Your task to perform on an android device: turn off picture-in-picture Image 0: 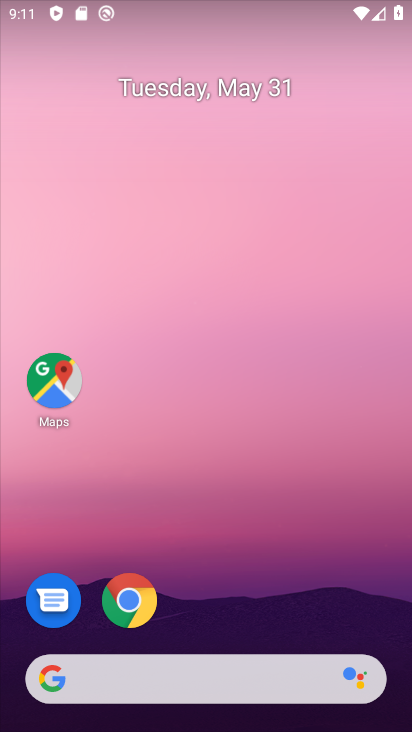
Step 0: drag from (209, 625) to (203, 286)
Your task to perform on an android device: turn off picture-in-picture Image 1: 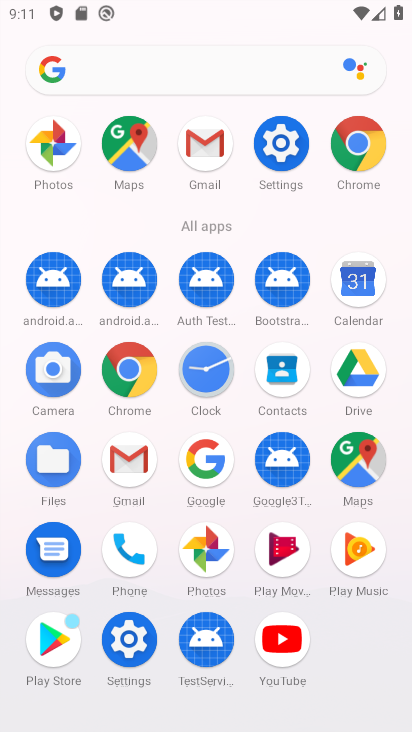
Step 1: click (132, 640)
Your task to perform on an android device: turn off picture-in-picture Image 2: 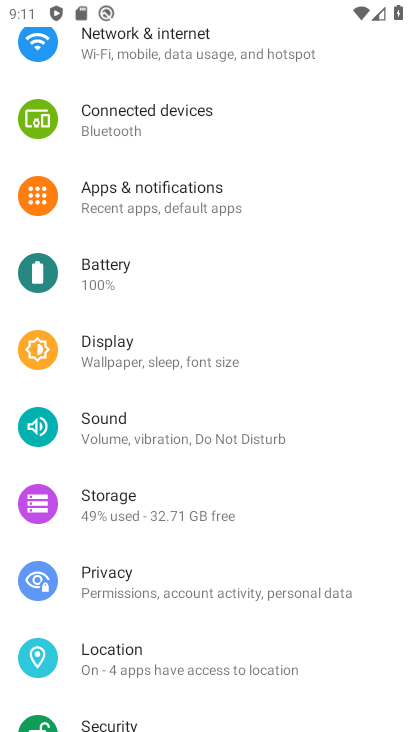
Step 2: click (131, 214)
Your task to perform on an android device: turn off picture-in-picture Image 3: 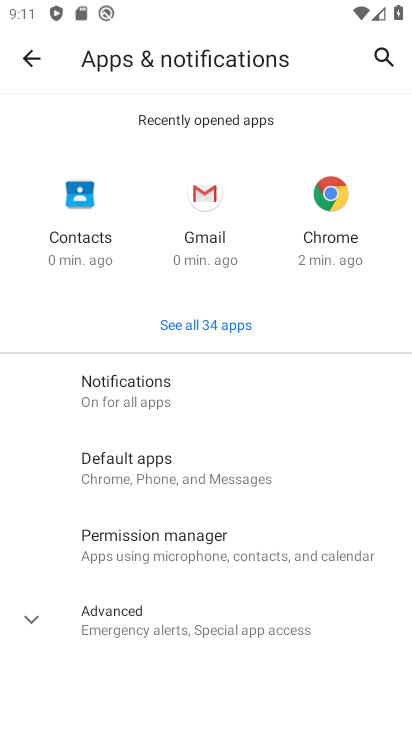
Step 3: click (138, 400)
Your task to perform on an android device: turn off picture-in-picture Image 4: 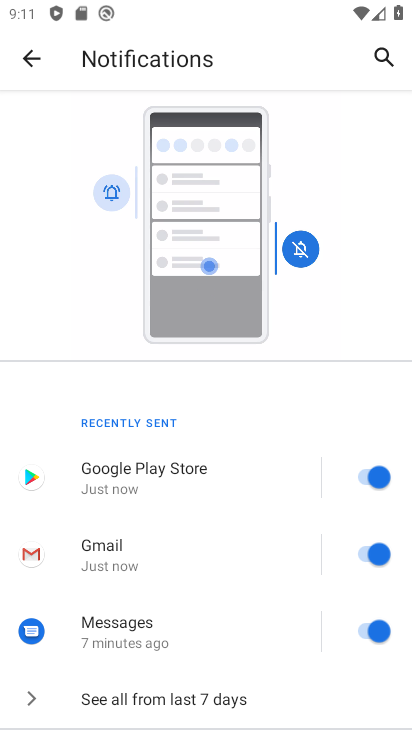
Step 4: drag from (182, 609) to (179, 309)
Your task to perform on an android device: turn off picture-in-picture Image 5: 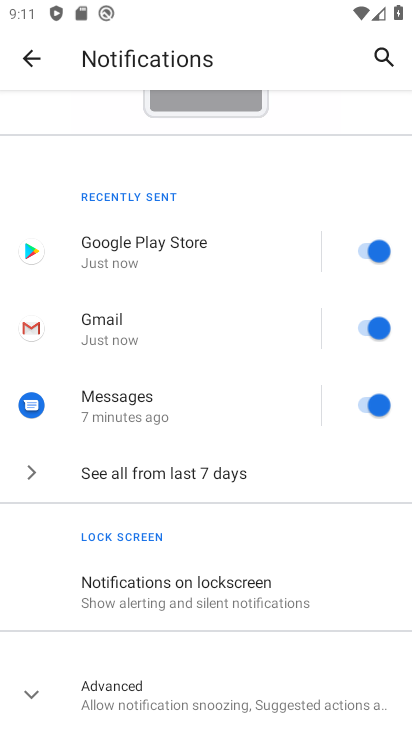
Step 5: drag from (147, 692) to (145, 473)
Your task to perform on an android device: turn off picture-in-picture Image 6: 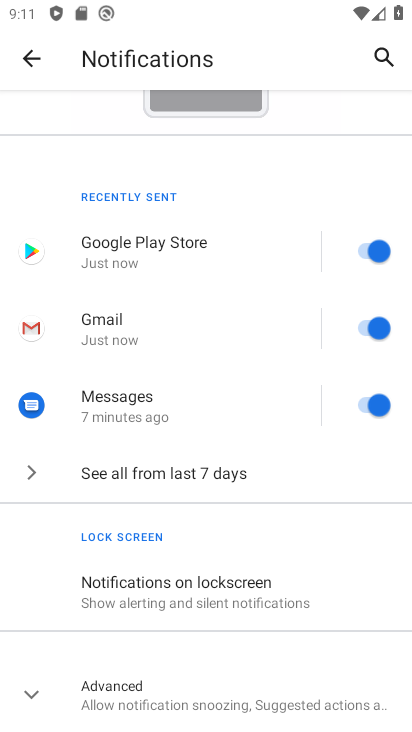
Step 6: click (103, 687)
Your task to perform on an android device: turn off picture-in-picture Image 7: 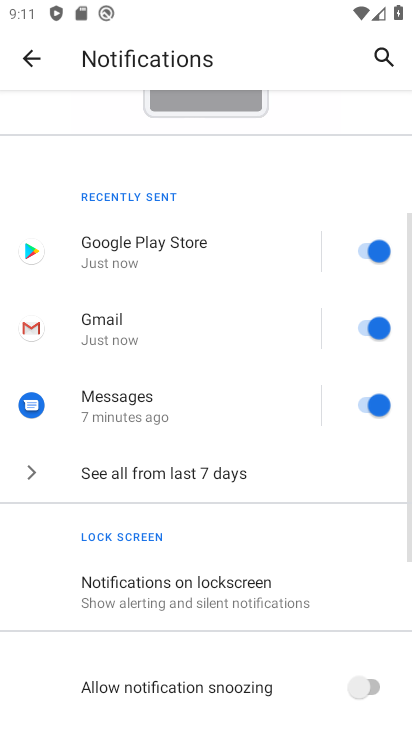
Step 7: drag from (180, 686) to (178, 379)
Your task to perform on an android device: turn off picture-in-picture Image 8: 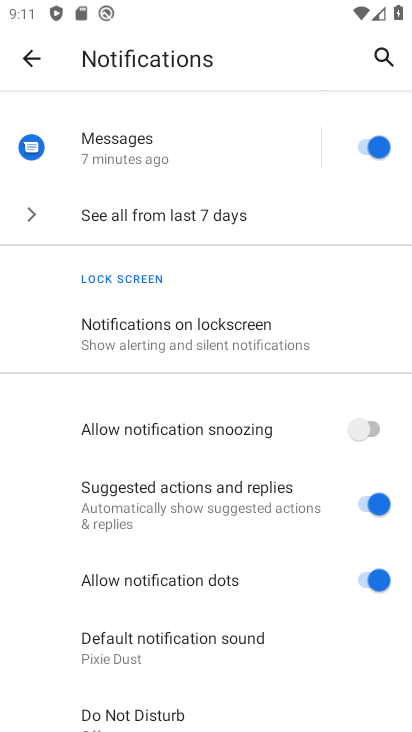
Step 8: drag from (212, 651) to (231, 413)
Your task to perform on an android device: turn off picture-in-picture Image 9: 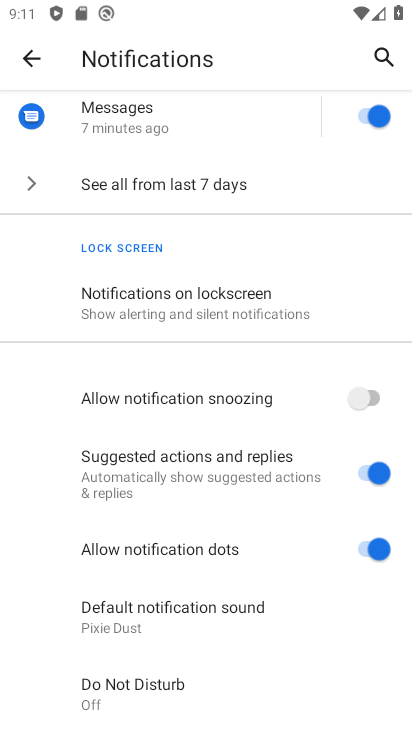
Step 9: drag from (229, 674) to (237, 352)
Your task to perform on an android device: turn off picture-in-picture Image 10: 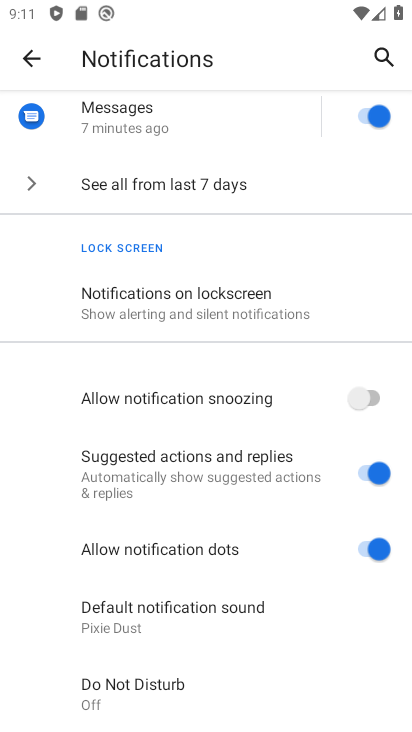
Step 10: drag from (174, 651) to (226, 391)
Your task to perform on an android device: turn off picture-in-picture Image 11: 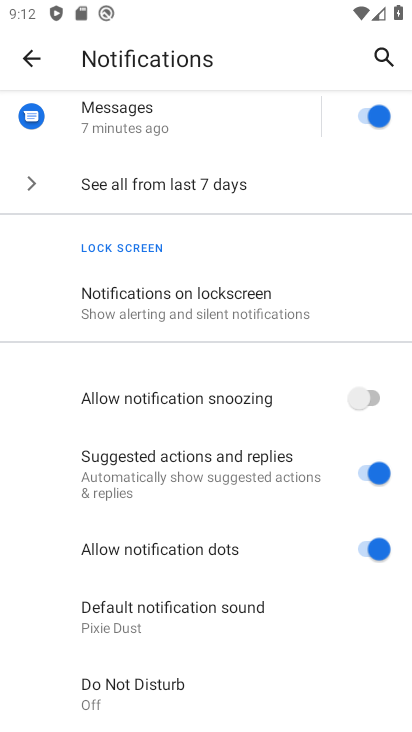
Step 11: drag from (202, 647) to (232, 374)
Your task to perform on an android device: turn off picture-in-picture Image 12: 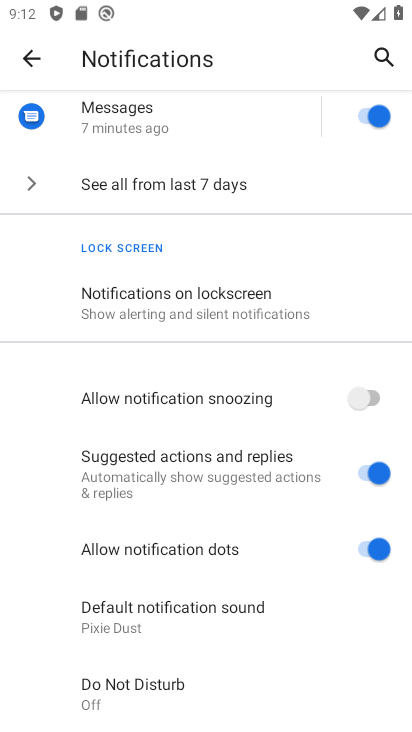
Step 12: drag from (168, 696) to (192, 446)
Your task to perform on an android device: turn off picture-in-picture Image 13: 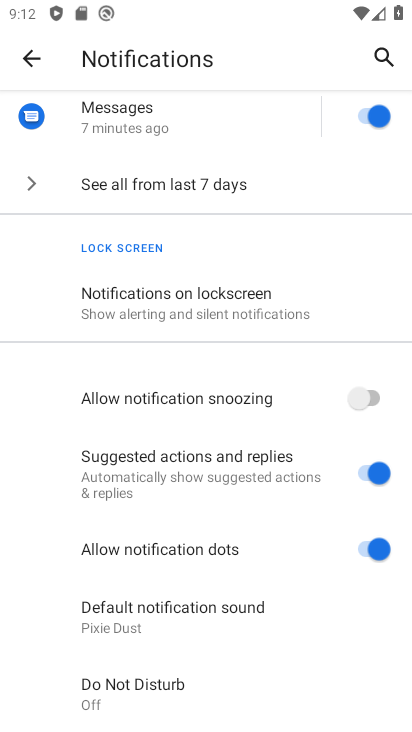
Step 13: drag from (220, 400) to (236, 720)
Your task to perform on an android device: turn off picture-in-picture Image 14: 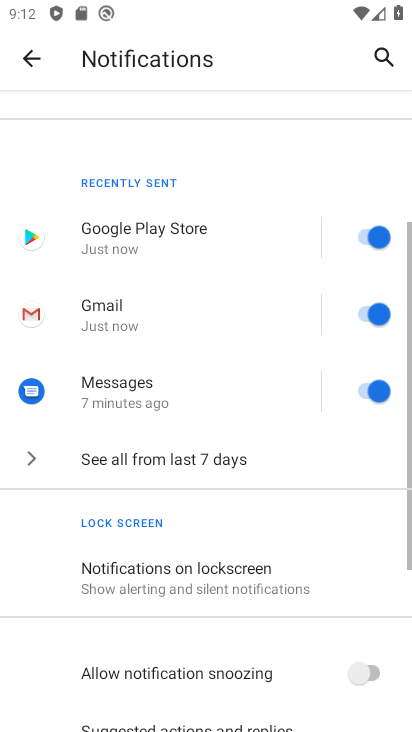
Step 14: drag from (193, 642) to (206, 285)
Your task to perform on an android device: turn off picture-in-picture Image 15: 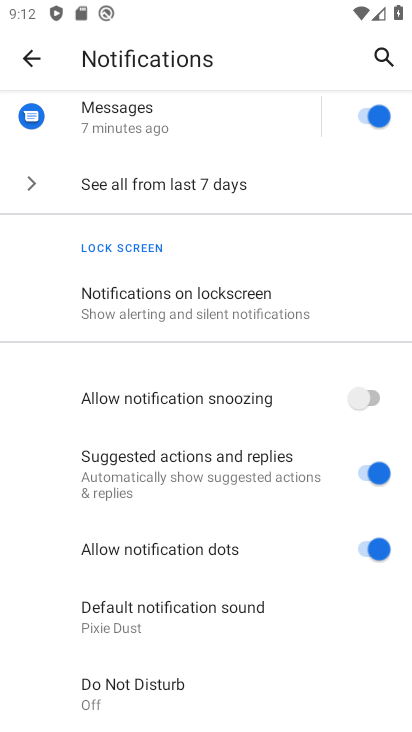
Step 15: click (29, 53)
Your task to perform on an android device: turn off picture-in-picture Image 16: 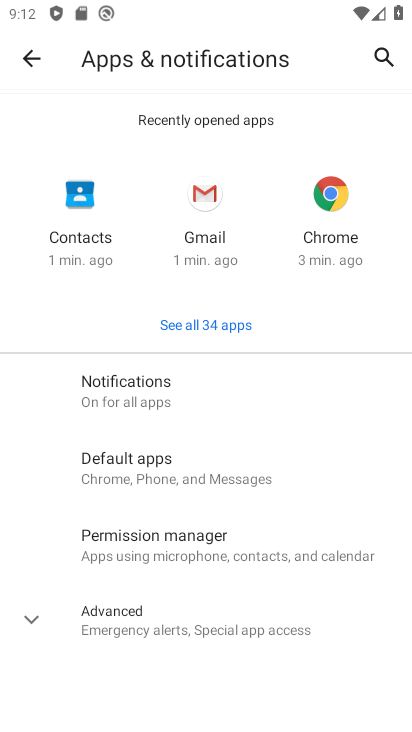
Step 16: click (98, 623)
Your task to perform on an android device: turn off picture-in-picture Image 17: 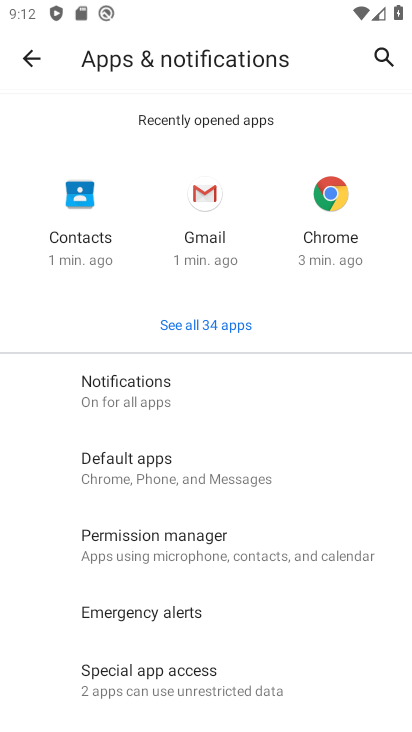
Step 17: click (127, 678)
Your task to perform on an android device: turn off picture-in-picture Image 18: 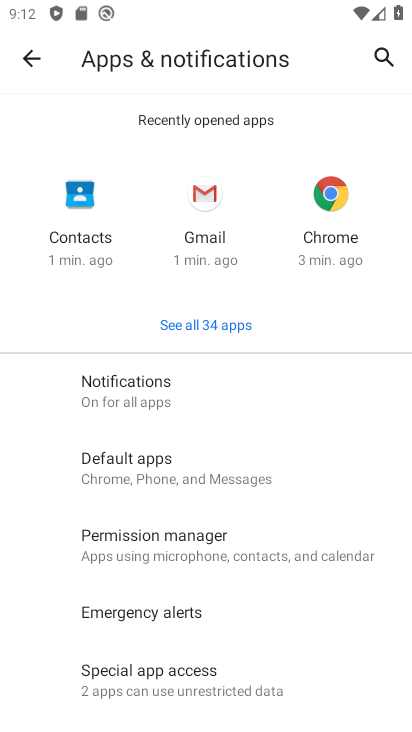
Step 18: drag from (128, 642) to (128, 399)
Your task to perform on an android device: turn off picture-in-picture Image 19: 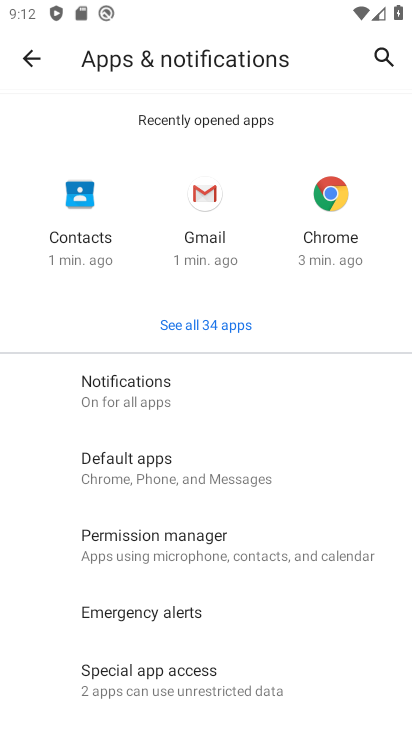
Step 19: click (129, 685)
Your task to perform on an android device: turn off picture-in-picture Image 20: 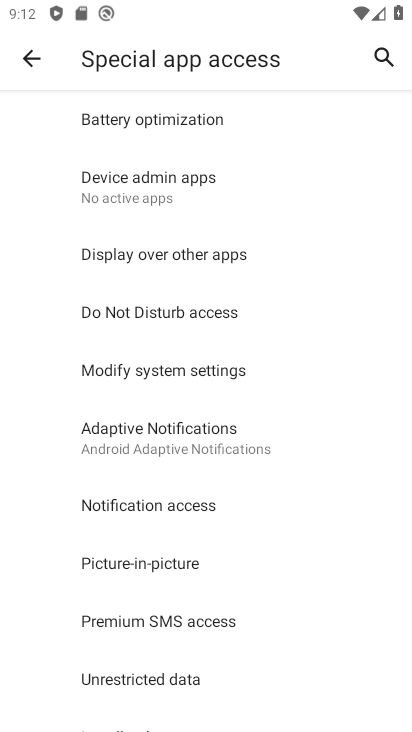
Step 20: click (122, 566)
Your task to perform on an android device: turn off picture-in-picture Image 21: 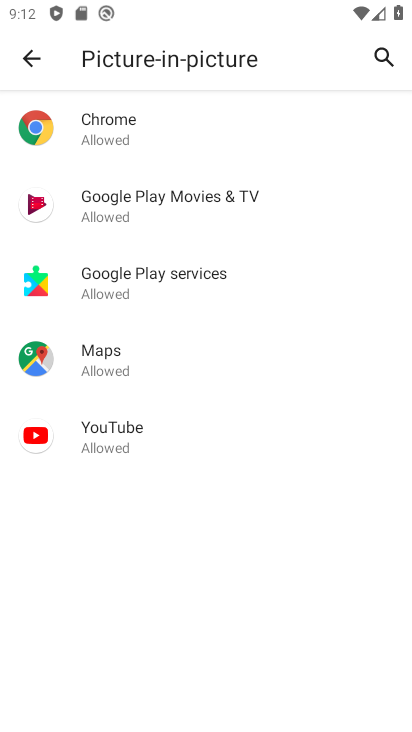
Step 21: click (112, 135)
Your task to perform on an android device: turn off picture-in-picture Image 22: 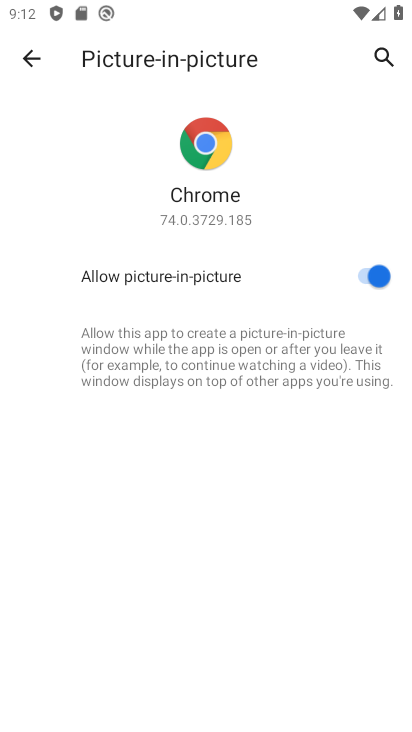
Step 22: click (368, 274)
Your task to perform on an android device: turn off picture-in-picture Image 23: 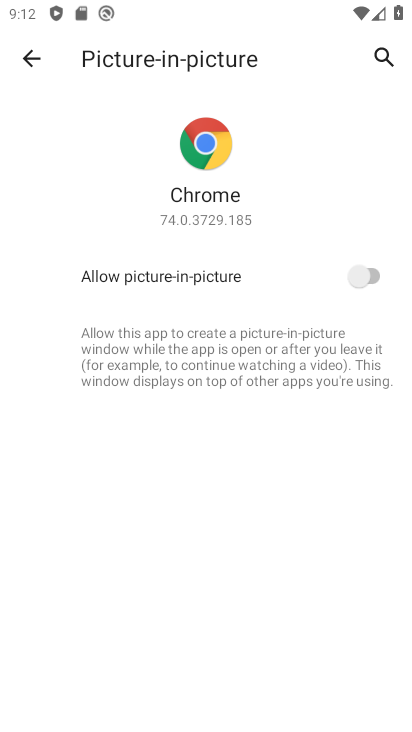
Step 23: task complete